Your task to perform on an android device: Open maps Image 0: 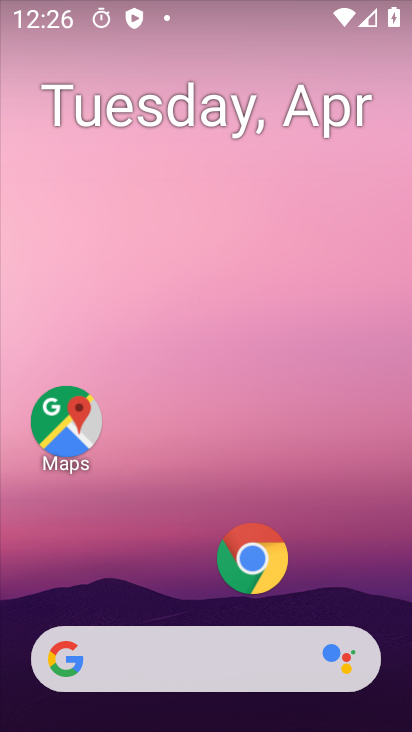
Step 0: click (56, 422)
Your task to perform on an android device: Open maps Image 1: 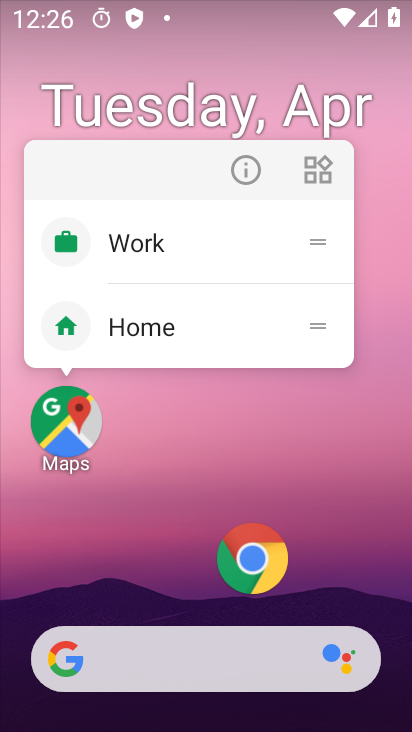
Step 1: click (58, 424)
Your task to perform on an android device: Open maps Image 2: 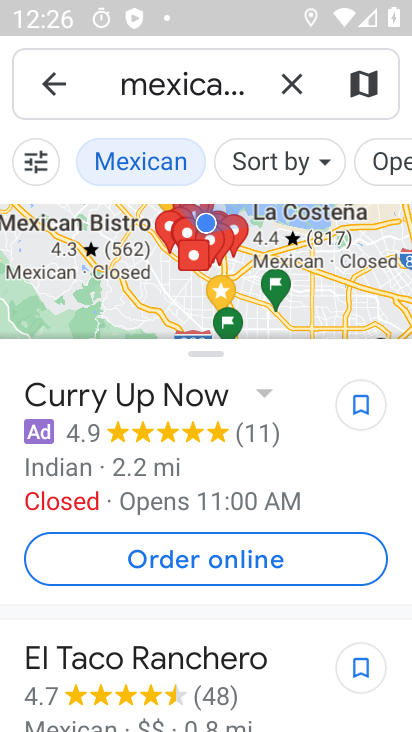
Step 2: task complete